Your task to perform on an android device: turn off wifi Image 0: 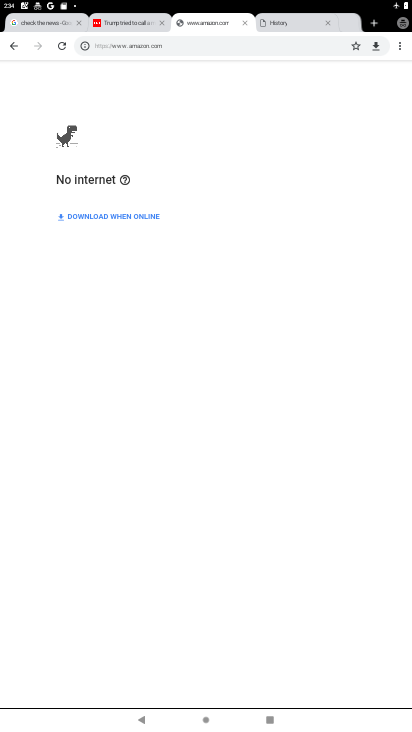
Step 0: press home button
Your task to perform on an android device: turn off wifi Image 1: 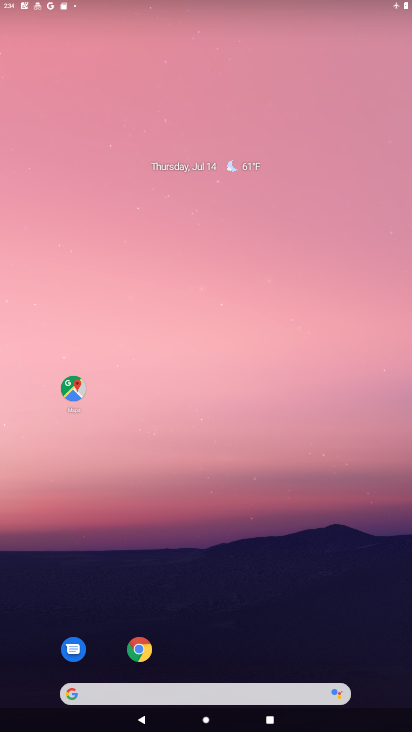
Step 1: drag from (239, 699) to (267, 6)
Your task to perform on an android device: turn off wifi Image 2: 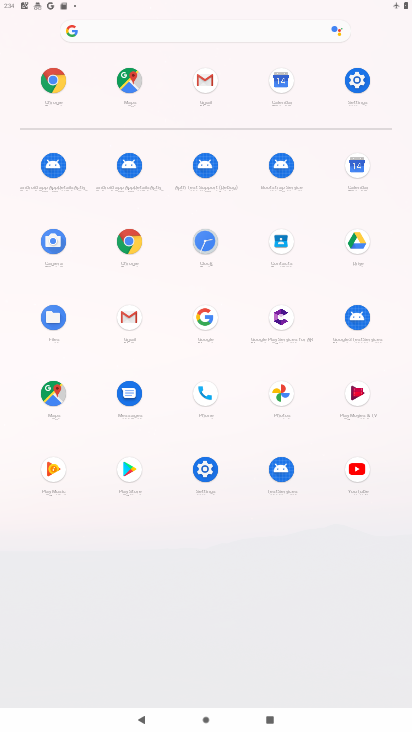
Step 2: click (356, 79)
Your task to perform on an android device: turn off wifi Image 3: 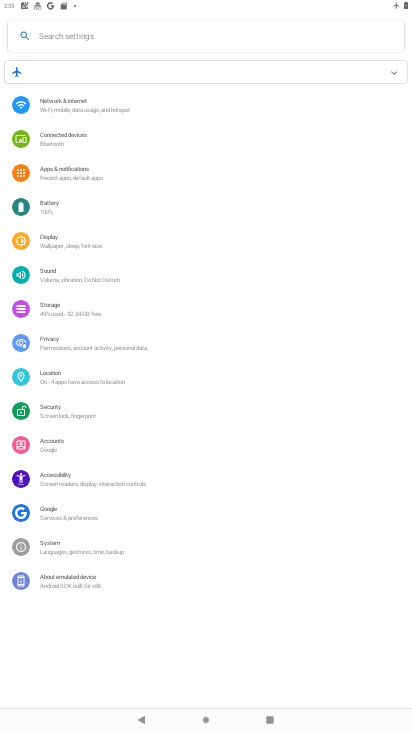
Step 3: click (195, 99)
Your task to perform on an android device: turn off wifi Image 4: 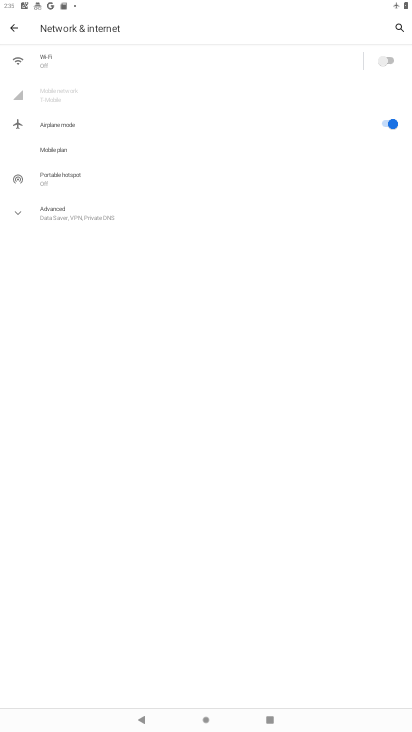
Step 4: task complete